Your task to perform on an android device: toggle data saver in the chrome app Image 0: 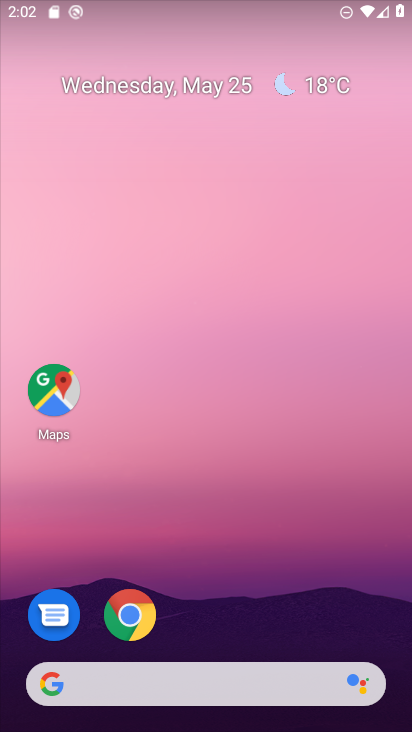
Step 0: click (128, 615)
Your task to perform on an android device: toggle data saver in the chrome app Image 1: 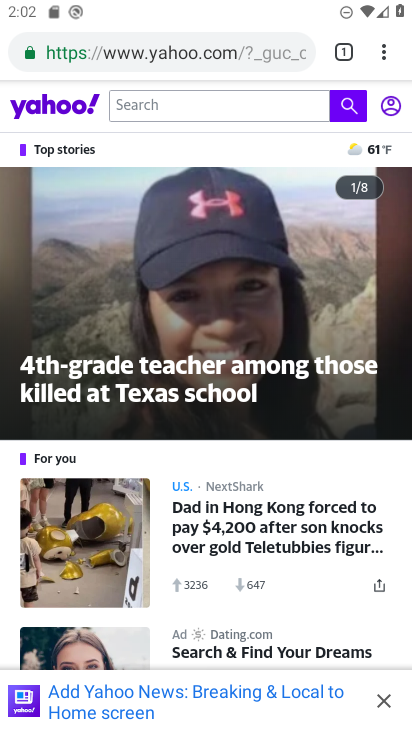
Step 1: click (383, 56)
Your task to perform on an android device: toggle data saver in the chrome app Image 2: 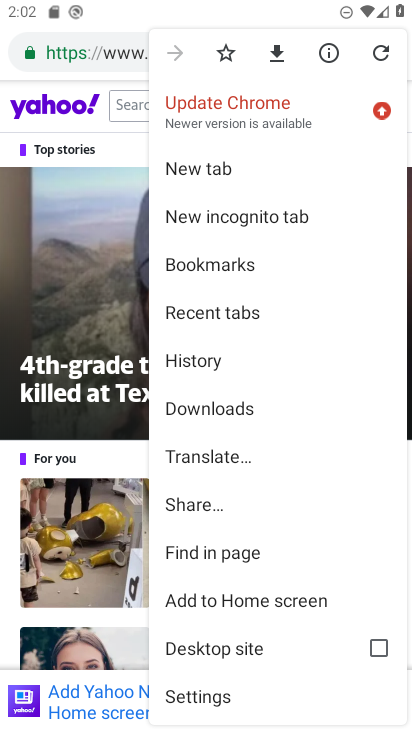
Step 2: click (223, 688)
Your task to perform on an android device: toggle data saver in the chrome app Image 3: 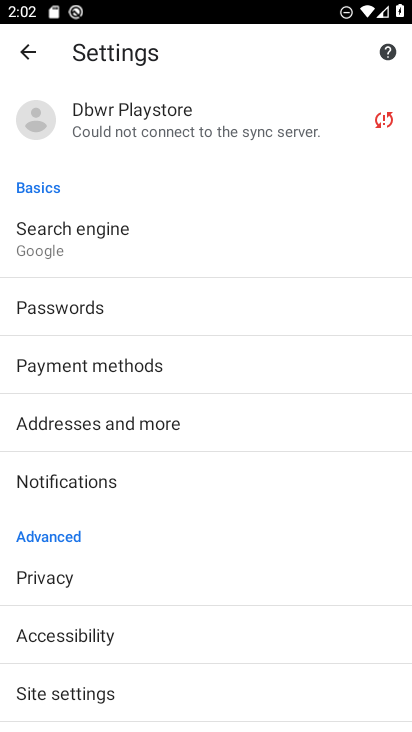
Step 3: drag from (210, 600) to (252, 285)
Your task to perform on an android device: toggle data saver in the chrome app Image 4: 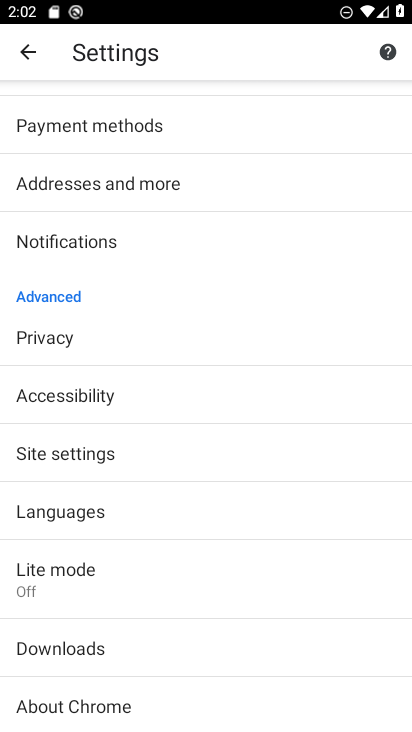
Step 4: click (138, 572)
Your task to perform on an android device: toggle data saver in the chrome app Image 5: 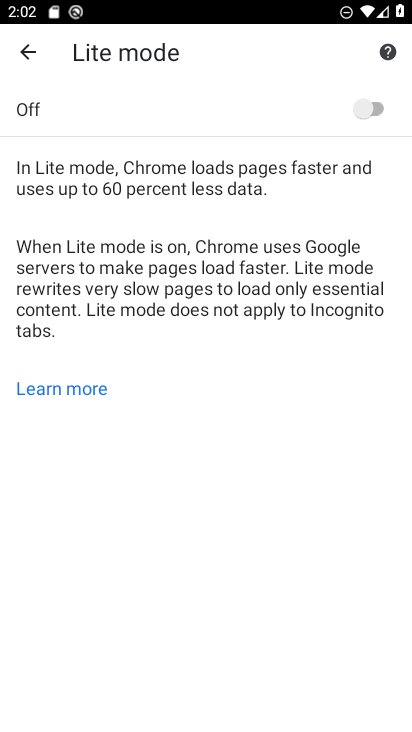
Step 5: click (375, 99)
Your task to perform on an android device: toggle data saver in the chrome app Image 6: 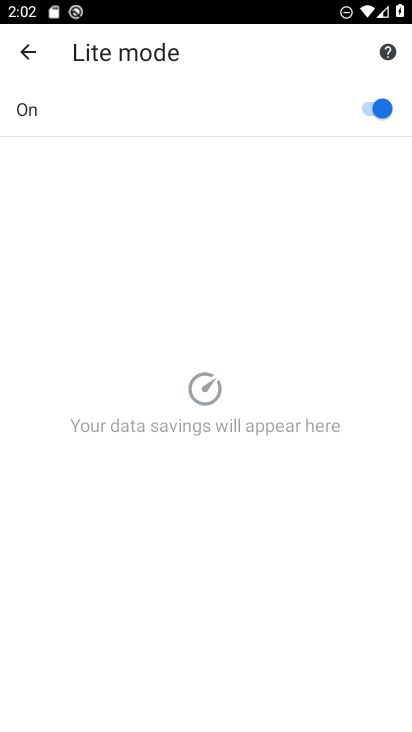
Step 6: task complete